Your task to perform on an android device: turn pop-ups on in chrome Image 0: 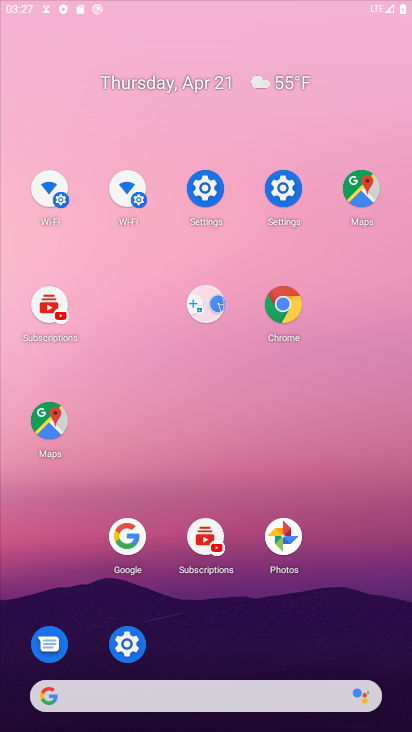
Step 0: drag from (6, 279) to (22, 135)
Your task to perform on an android device: turn pop-ups on in chrome Image 1: 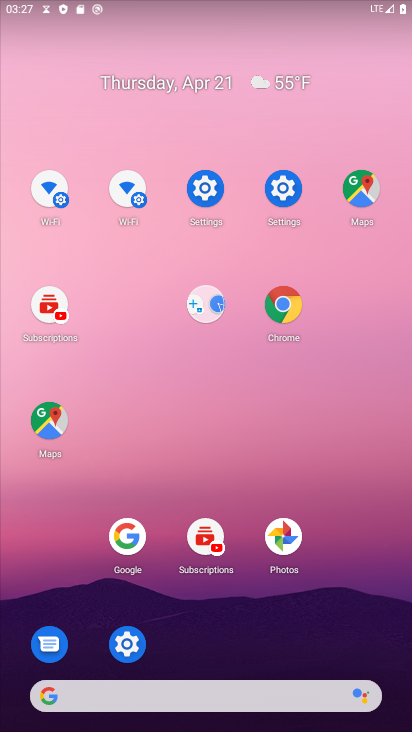
Step 1: drag from (300, 533) to (127, 13)
Your task to perform on an android device: turn pop-ups on in chrome Image 2: 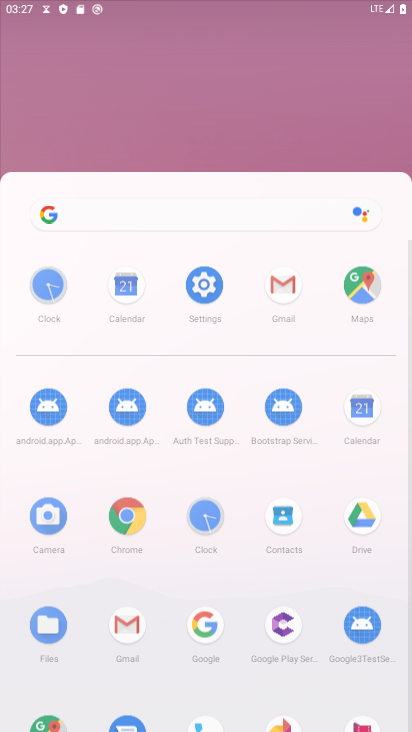
Step 2: drag from (179, 98) to (208, 5)
Your task to perform on an android device: turn pop-ups on in chrome Image 3: 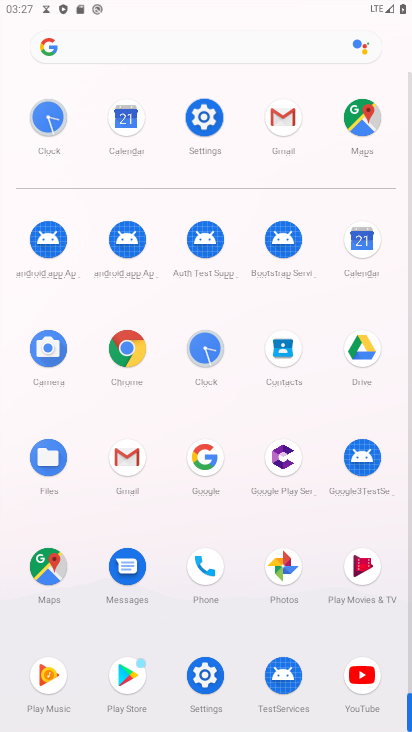
Step 3: drag from (297, 502) to (146, 59)
Your task to perform on an android device: turn pop-ups on in chrome Image 4: 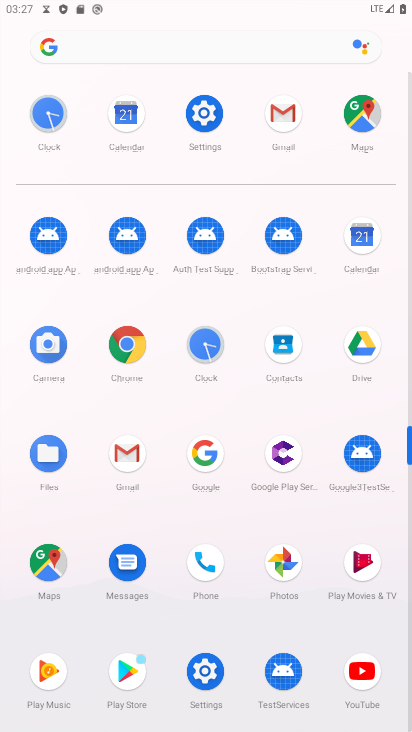
Step 4: click (119, 345)
Your task to perform on an android device: turn pop-ups on in chrome Image 5: 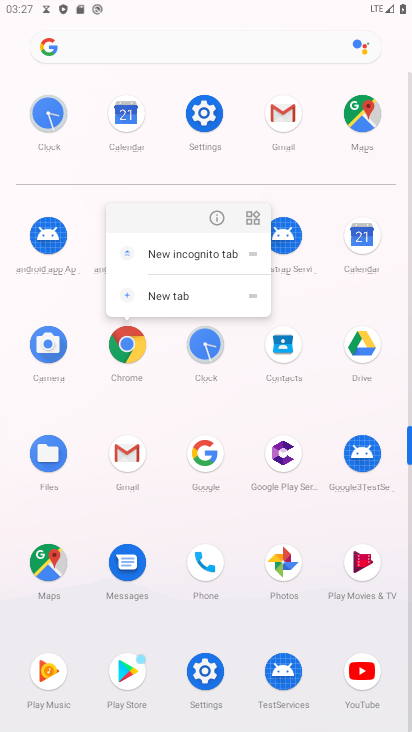
Step 5: click (119, 350)
Your task to perform on an android device: turn pop-ups on in chrome Image 6: 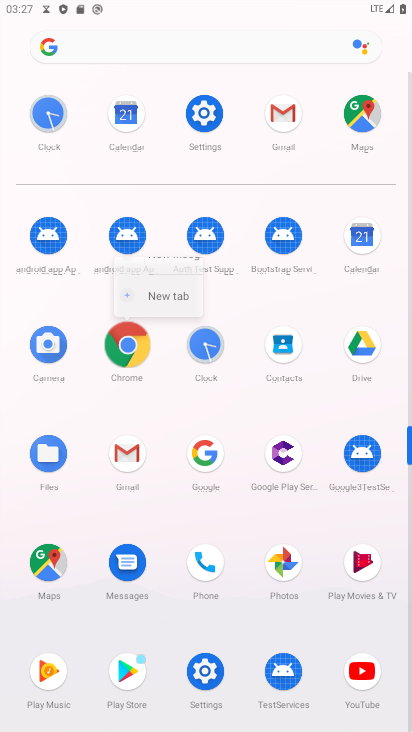
Step 6: click (119, 350)
Your task to perform on an android device: turn pop-ups on in chrome Image 7: 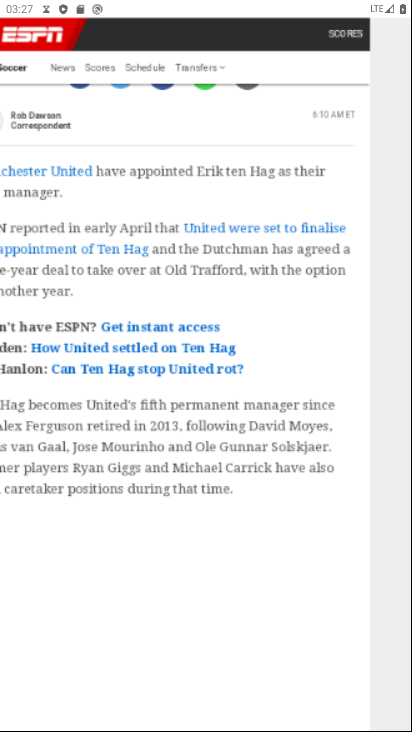
Step 7: click (119, 350)
Your task to perform on an android device: turn pop-ups on in chrome Image 8: 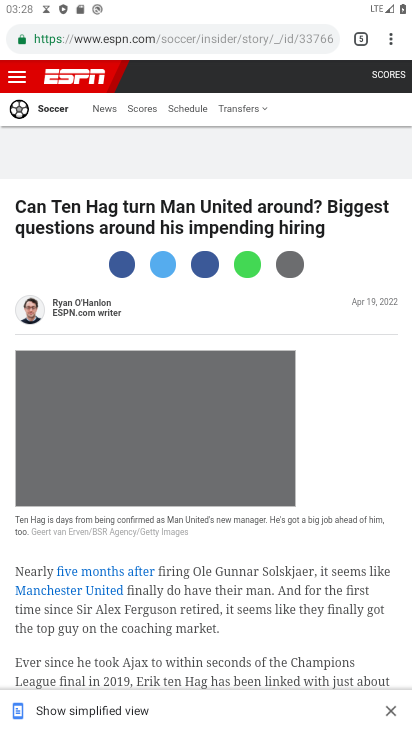
Step 8: drag from (394, 43) to (273, 518)
Your task to perform on an android device: turn pop-ups on in chrome Image 9: 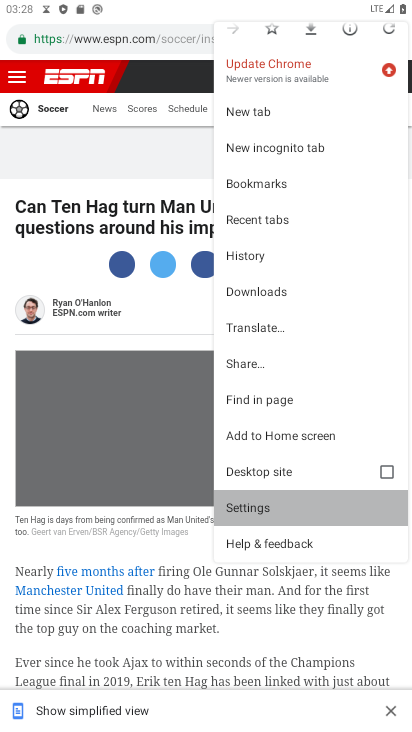
Step 9: click (271, 511)
Your task to perform on an android device: turn pop-ups on in chrome Image 10: 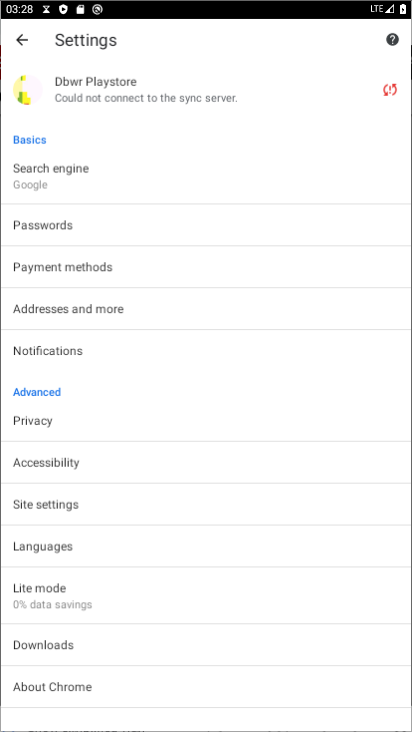
Step 10: click (272, 502)
Your task to perform on an android device: turn pop-ups on in chrome Image 11: 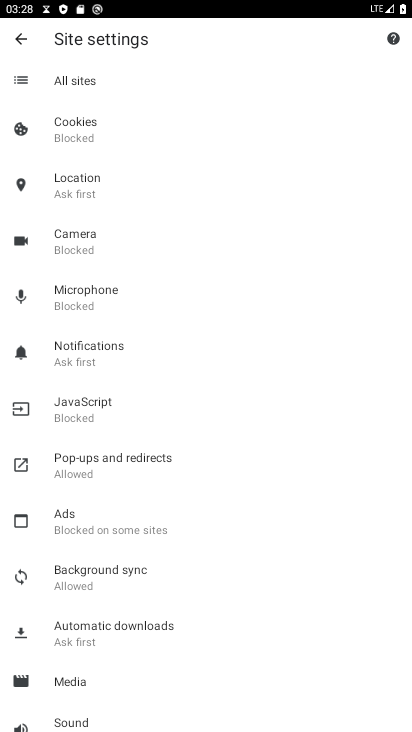
Step 11: click (85, 463)
Your task to perform on an android device: turn pop-ups on in chrome Image 12: 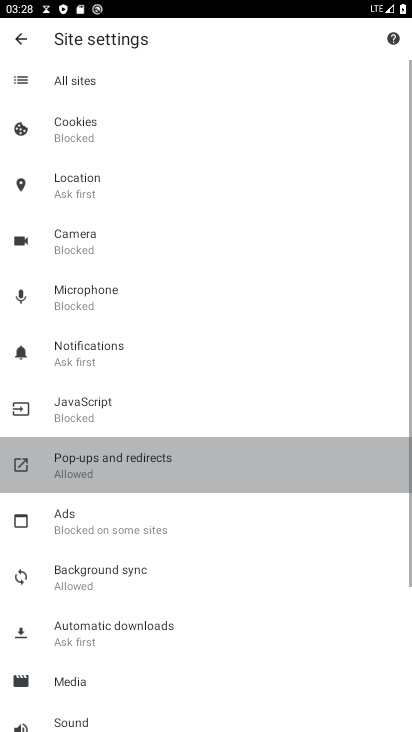
Step 12: click (109, 456)
Your task to perform on an android device: turn pop-ups on in chrome Image 13: 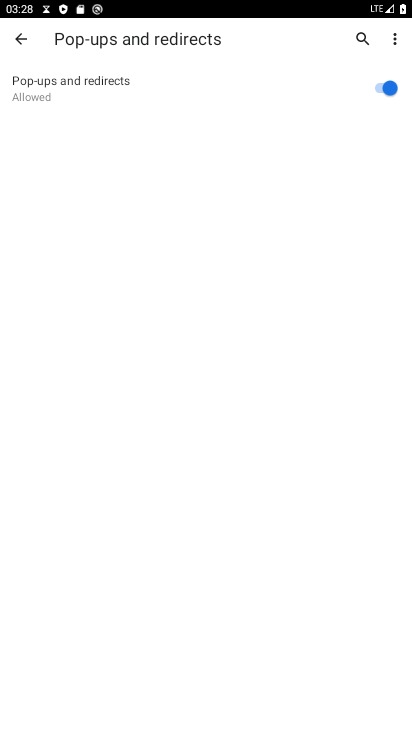
Step 13: click (389, 85)
Your task to perform on an android device: turn pop-ups on in chrome Image 14: 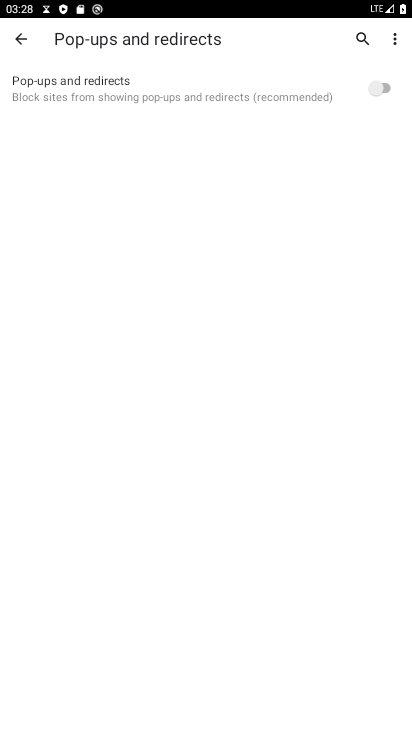
Step 14: click (375, 88)
Your task to perform on an android device: turn pop-ups on in chrome Image 15: 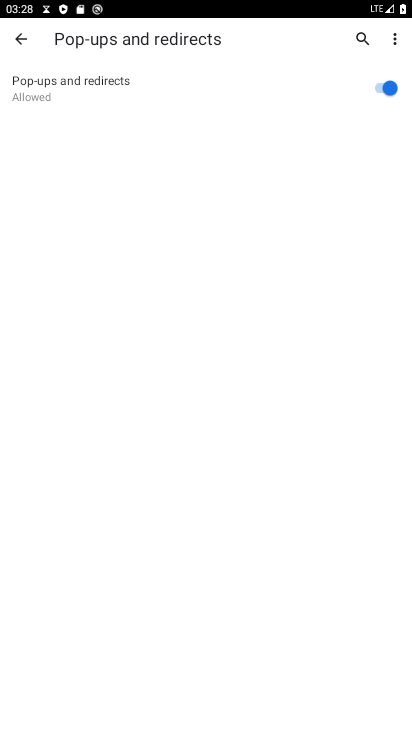
Step 15: task complete